Your task to perform on an android device: Is it going to rain this weekend? Image 0: 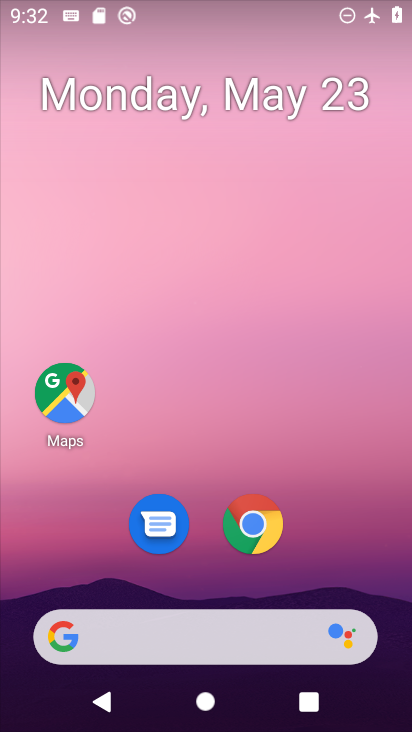
Step 0: click (291, 635)
Your task to perform on an android device: Is it going to rain this weekend? Image 1: 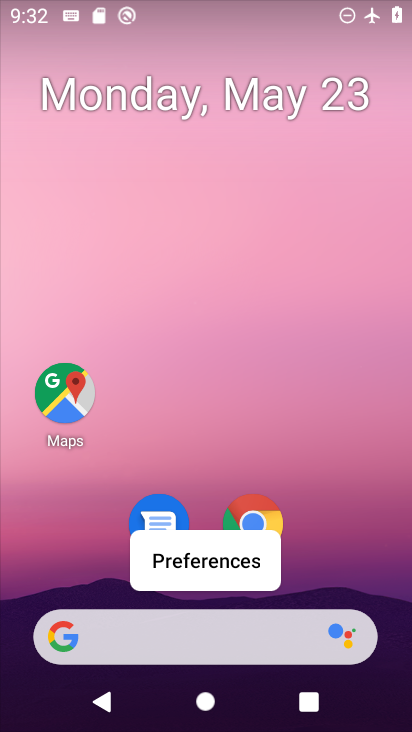
Step 1: click (234, 634)
Your task to perform on an android device: Is it going to rain this weekend? Image 2: 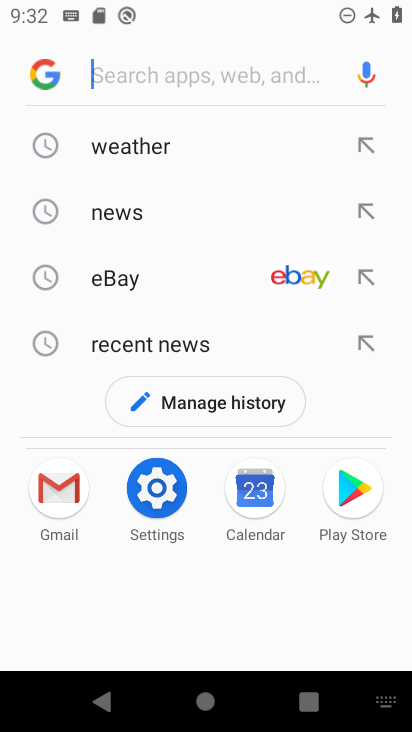
Step 2: click (128, 147)
Your task to perform on an android device: Is it going to rain this weekend? Image 3: 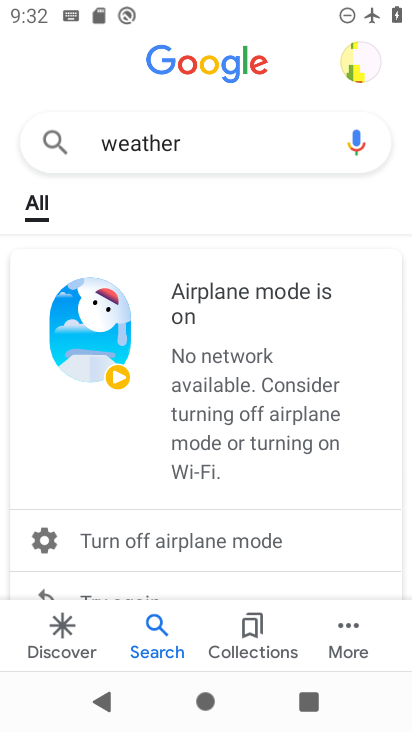
Step 3: task complete